Your task to perform on an android device: Open calendar and show me the first week of next month Image 0: 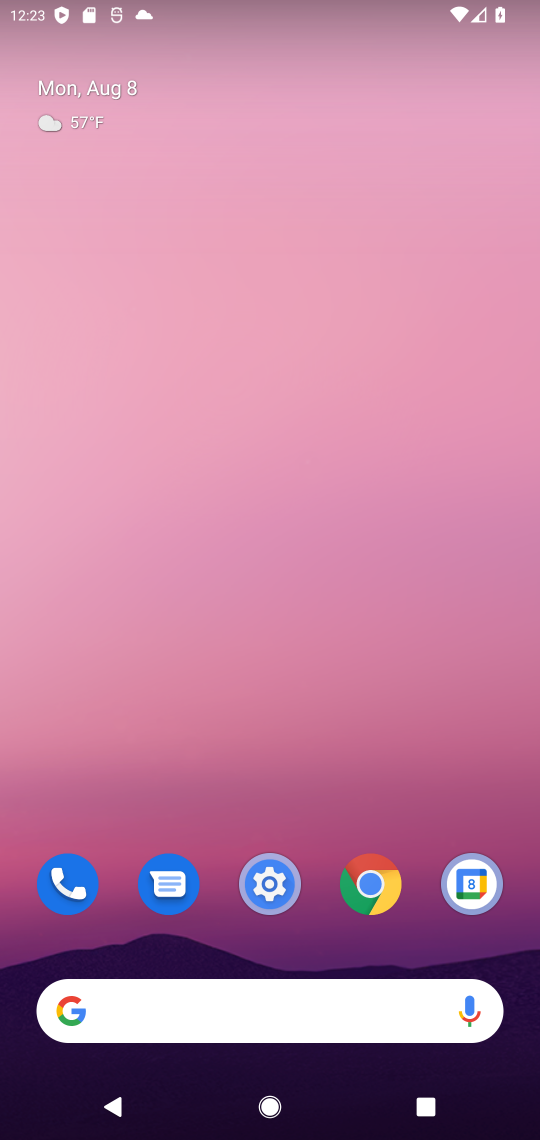
Step 0: click (469, 884)
Your task to perform on an android device: Open calendar and show me the first week of next month Image 1: 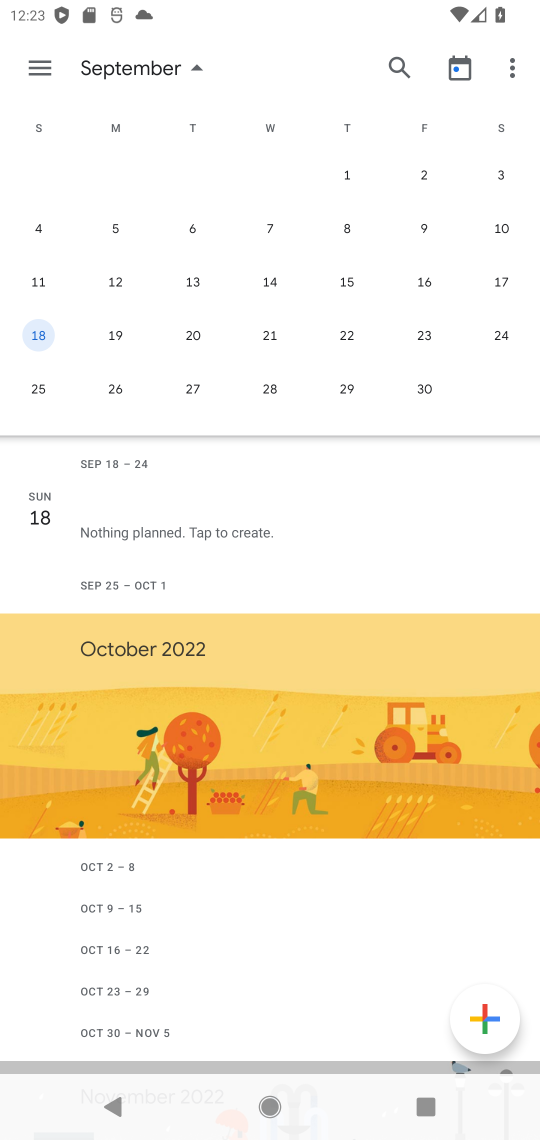
Step 1: task complete